Your task to perform on an android device: Open eBay Image 0: 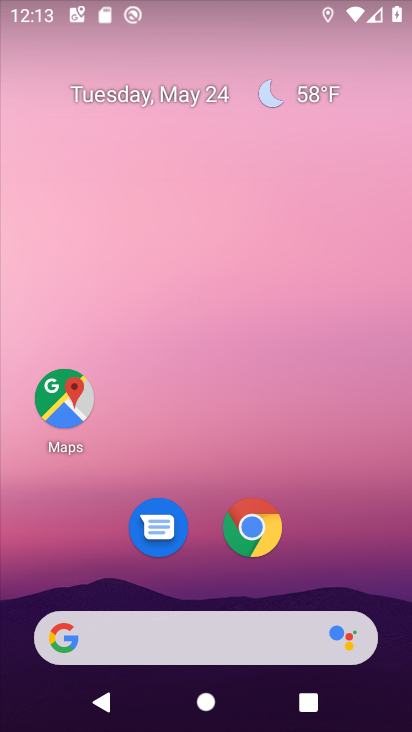
Step 0: click (272, 528)
Your task to perform on an android device: Open eBay Image 1: 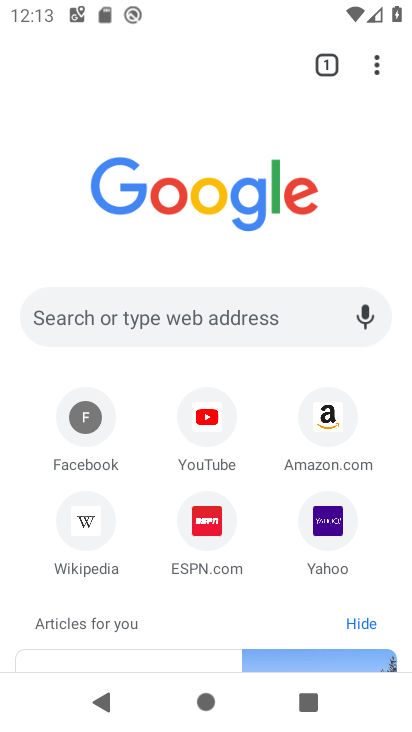
Step 1: click (263, 317)
Your task to perform on an android device: Open eBay Image 2: 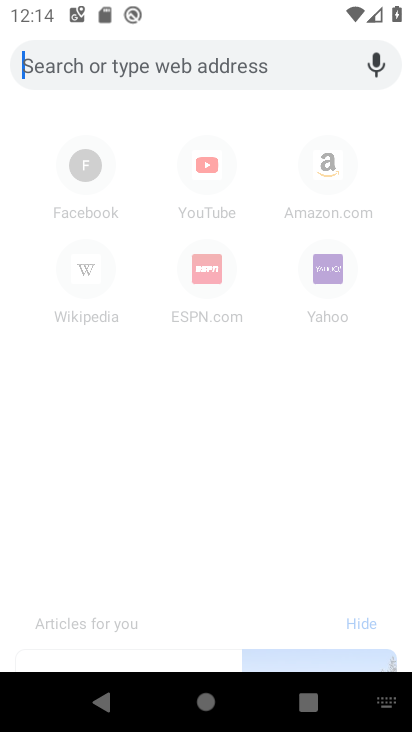
Step 2: type "ebay"
Your task to perform on an android device: Open eBay Image 3: 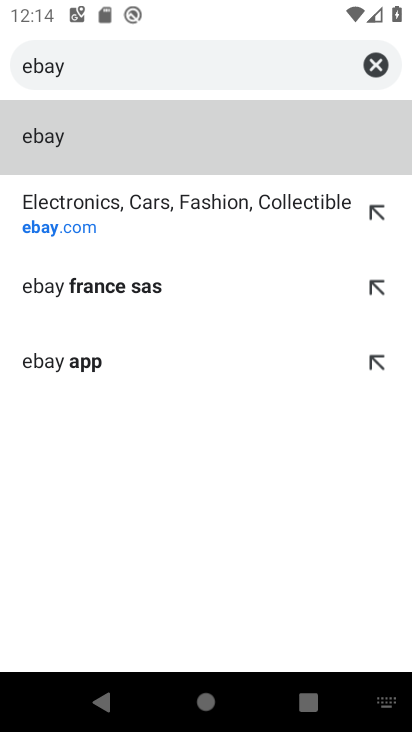
Step 3: click (52, 228)
Your task to perform on an android device: Open eBay Image 4: 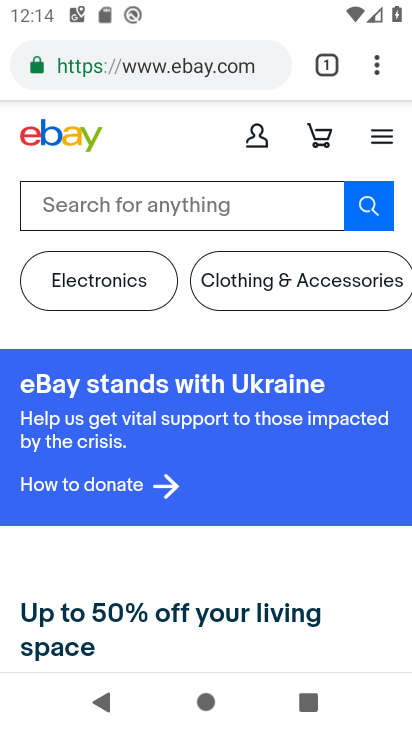
Step 4: task complete